Your task to perform on an android device: Open battery settings Image 0: 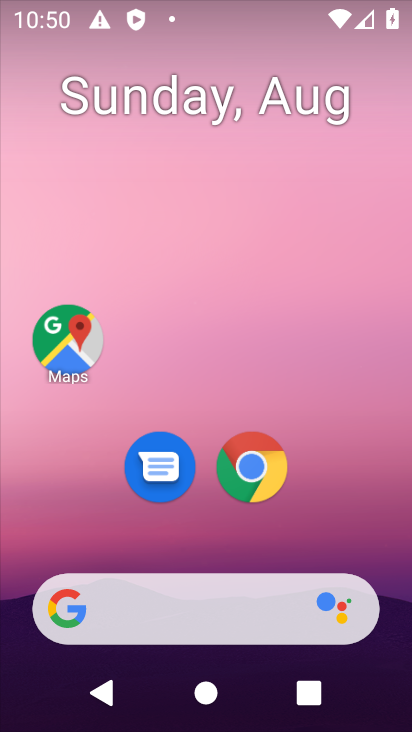
Step 0: drag from (156, 670) to (148, 232)
Your task to perform on an android device: Open battery settings Image 1: 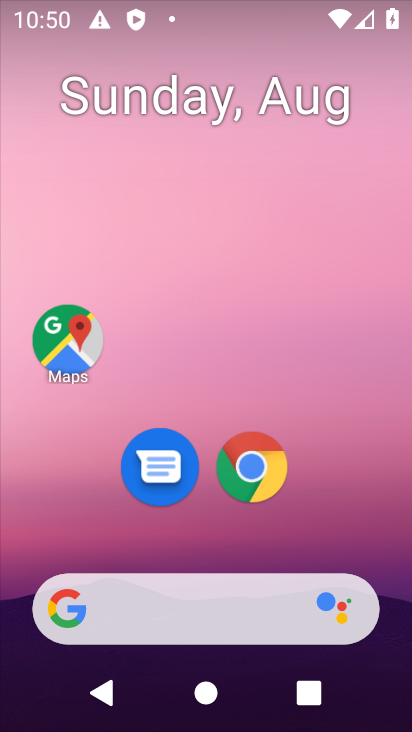
Step 1: drag from (209, 583) to (209, 259)
Your task to perform on an android device: Open battery settings Image 2: 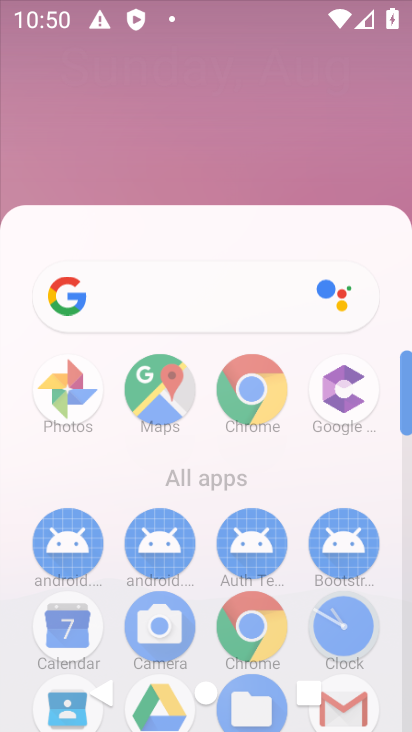
Step 2: drag from (210, 496) to (207, 118)
Your task to perform on an android device: Open battery settings Image 3: 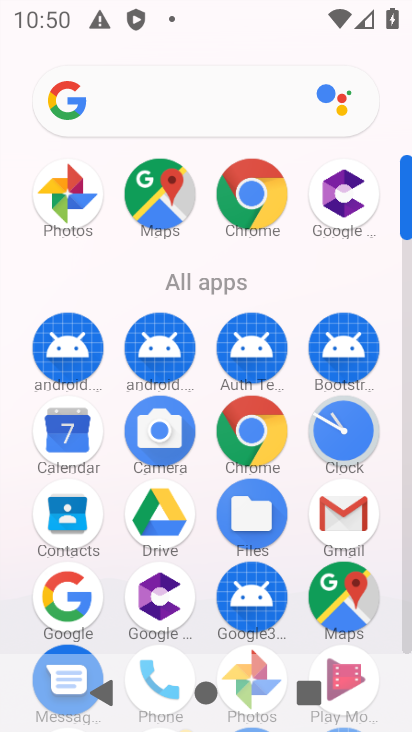
Step 3: drag from (251, 384) to (251, 176)
Your task to perform on an android device: Open battery settings Image 4: 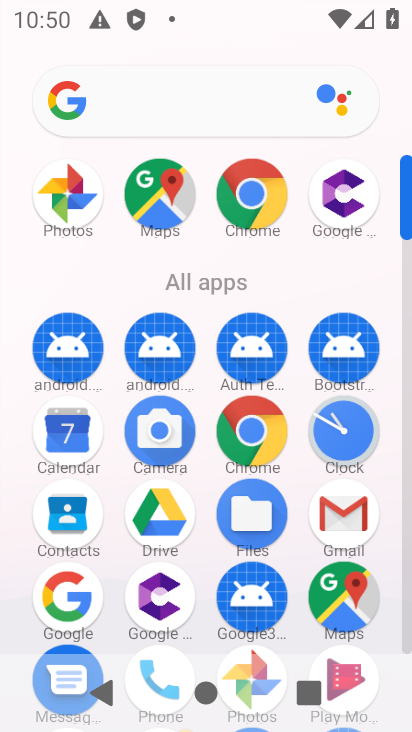
Step 4: drag from (192, 548) to (192, 224)
Your task to perform on an android device: Open battery settings Image 5: 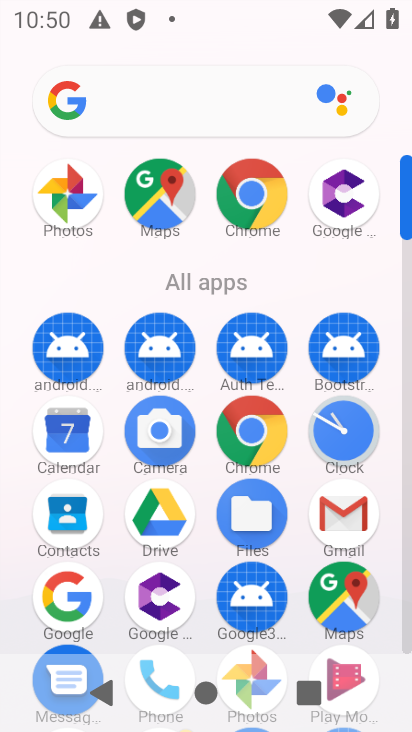
Step 5: drag from (193, 430) to (254, 256)
Your task to perform on an android device: Open battery settings Image 6: 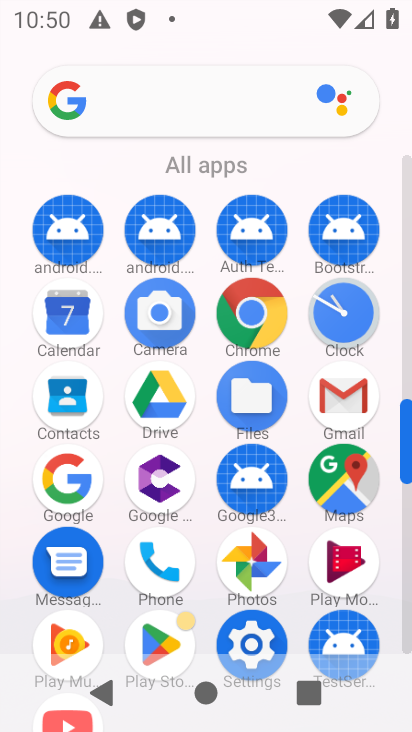
Step 6: click (257, 324)
Your task to perform on an android device: Open battery settings Image 7: 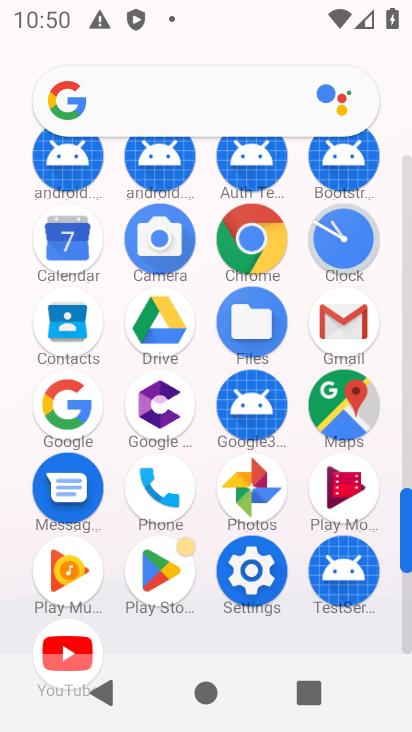
Step 7: drag from (269, 506) to (296, 286)
Your task to perform on an android device: Open battery settings Image 8: 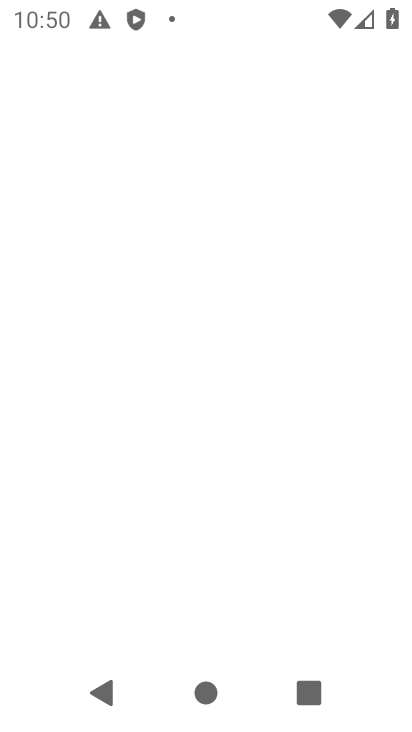
Step 8: click (249, 580)
Your task to perform on an android device: Open battery settings Image 9: 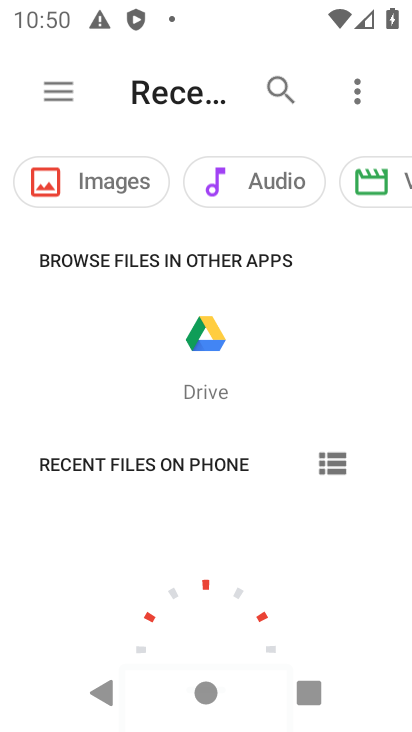
Step 9: press back button
Your task to perform on an android device: Open battery settings Image 10: 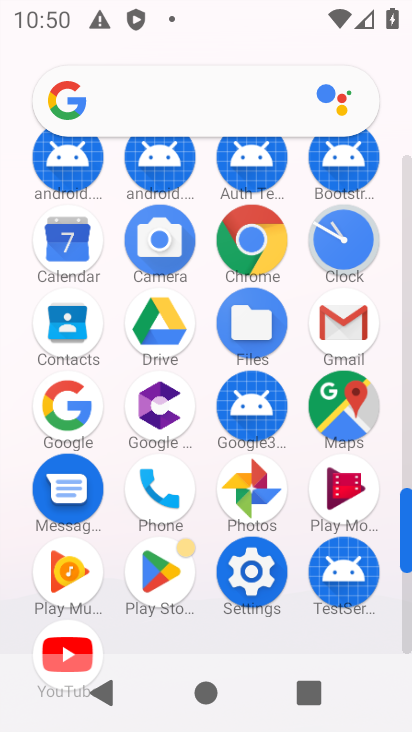
Step 10: click (260, 570)
Your task to perform on an android device: Open battery settings Image 11: 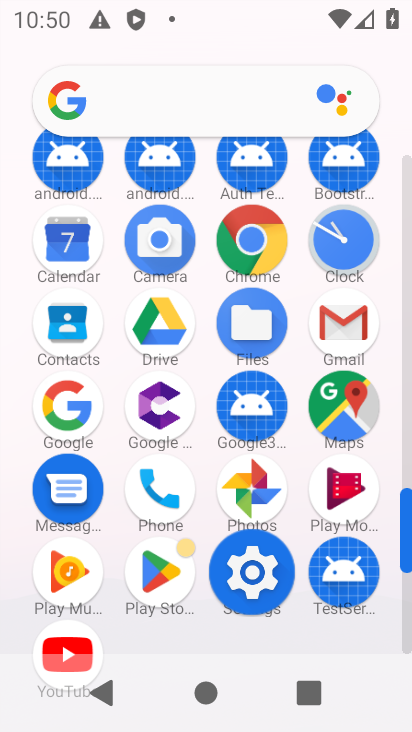
Step 11: click (261, 568)
Your task to perform on an android device: Open battery settings Image 12: 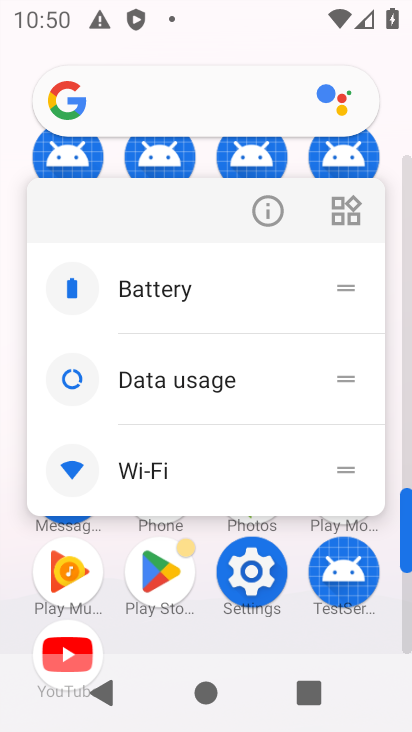
Step 12: click (261, 569)
Your task to perform on an android device: Open battery settings Image 13: 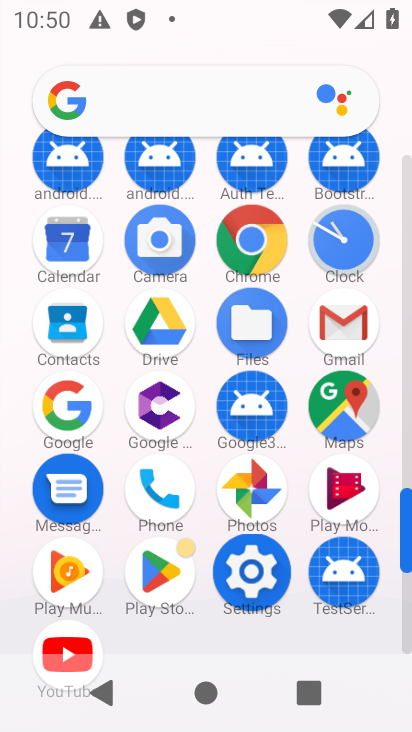
Step 13: click (263, 569)
Your task to perform on an android device: Open battery settings Image 14: 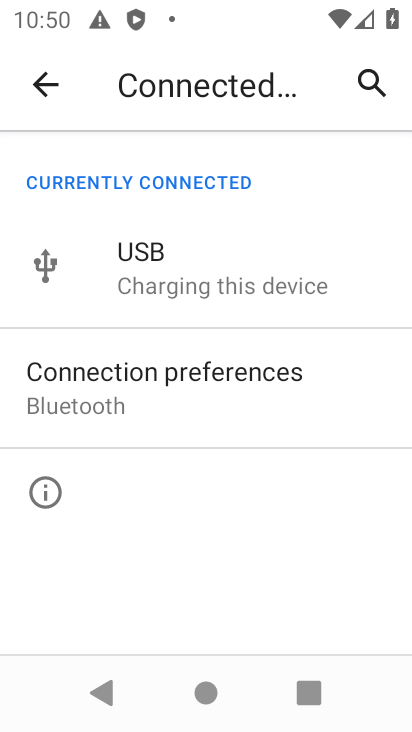
Step 14: click (44, 80)
Your task to perform on an android device: Open battery settings Image 15: 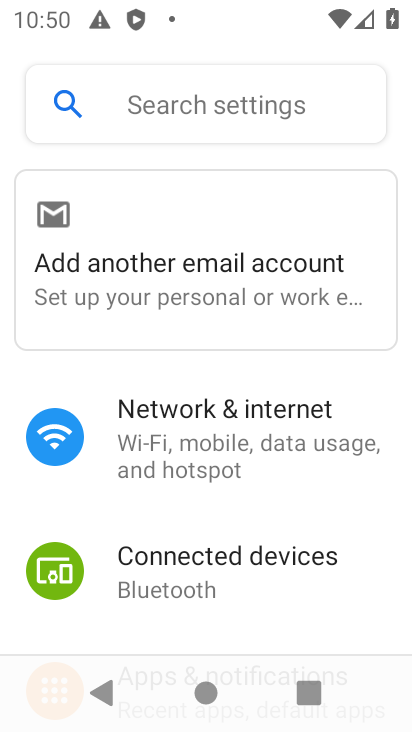
Step 15: drag from (220, 544) to (201, 297)
Your task to perform on an android device: Open battery settings Image 16: 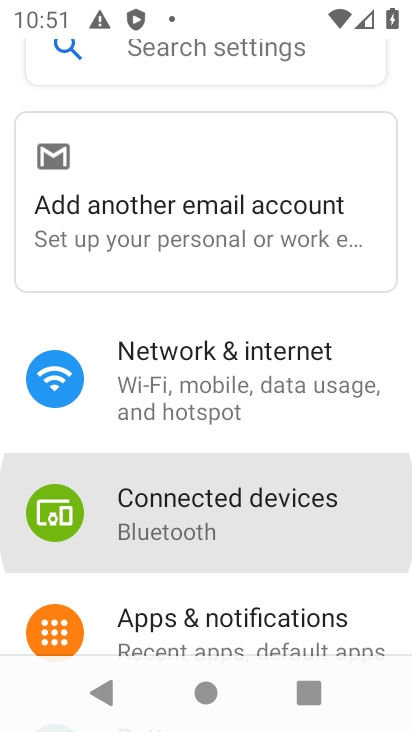
Step 16: drag from (201, 440) to (195, 277)
Your task to perform on an android device: Open battery settings Image 17: 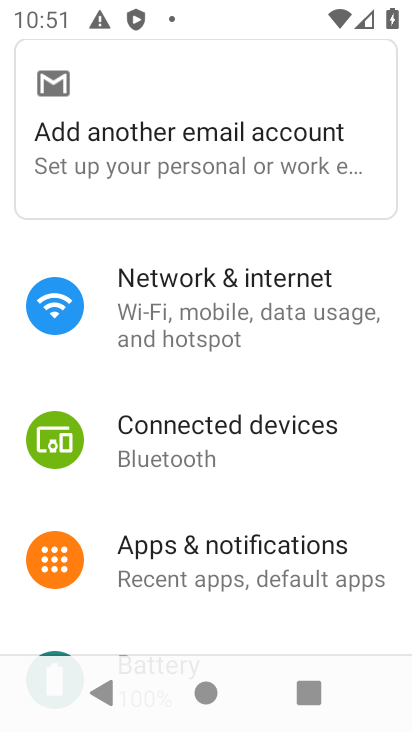
Step 17: drag from (195, 481) to (195, 251)
Your task to perform on an android device: Open battery settings Image 18: 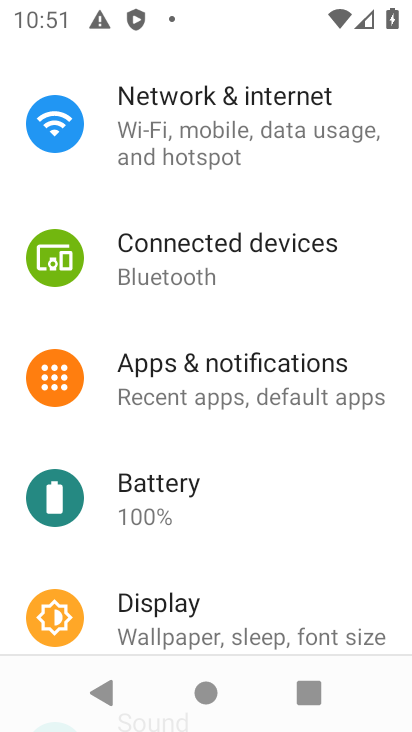
Step 18: drag from (236, 507) to (230, 276)
Your task to perform on an android device: Open battery settings Image 19: 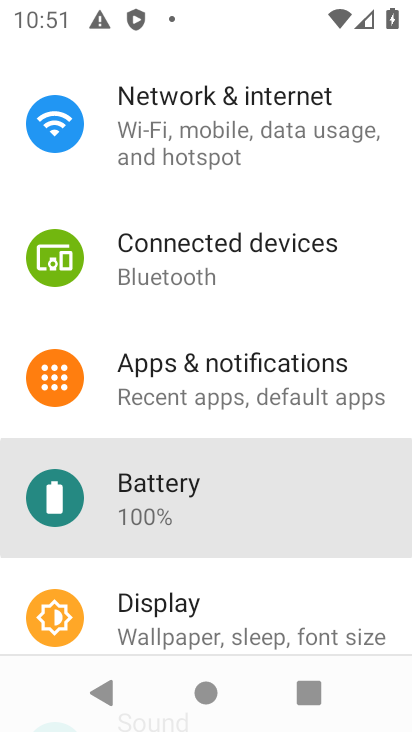
Step 19: drag from (211, 535) to (207, 308)
Your task to perform on an android device: Open battery settings Image 20: 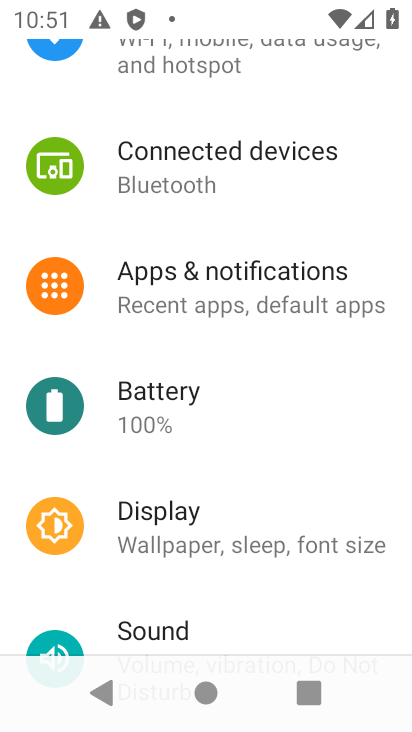
Step 20: drag from (200, 417) to (189, 278)
Your task to perform on an android device: Open battery settings Image 21: 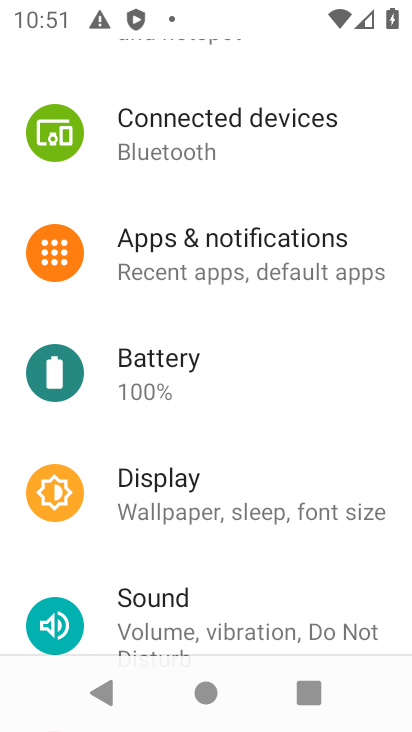
Step 21: drag from (180, 435) to (178, 289)
Your task to perform on an android device: Open battery settings Image 22: 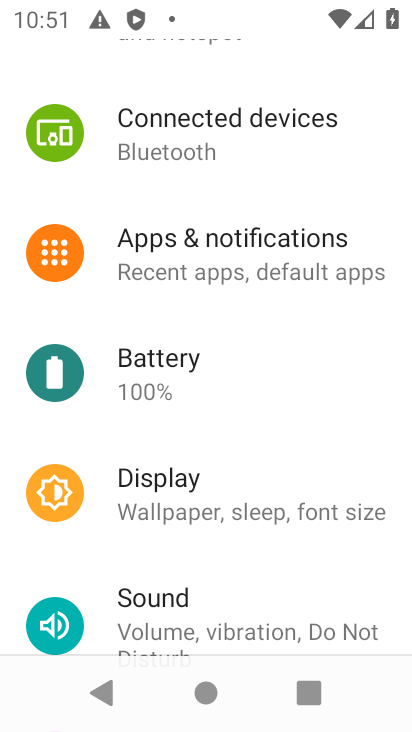
Step 22: drag from (221, 499) to (219, 313)
Your task to perform on an android device: Open battery settings Image 23: 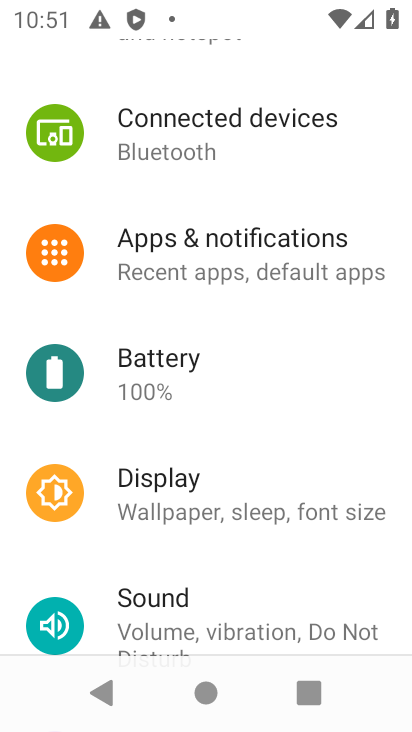
Step 23: drag from (287, 381) to (297, 321)
Your task to perform on an android device: Open battery settings Image 24: 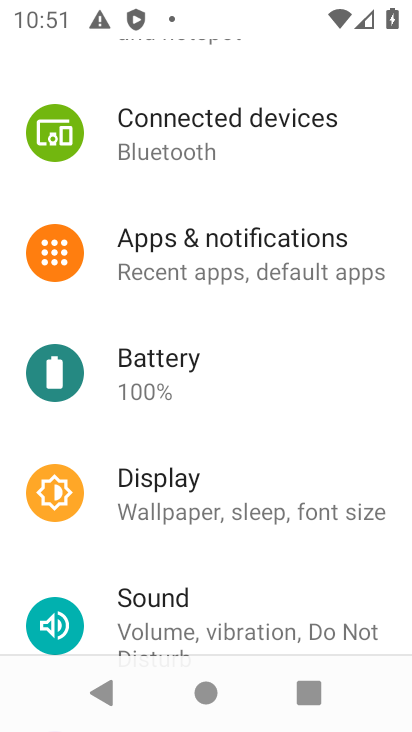
Step 24: drag from (179, 549) to (202, 321)
Your task to perform on an android device: Open battery settings Image 25: 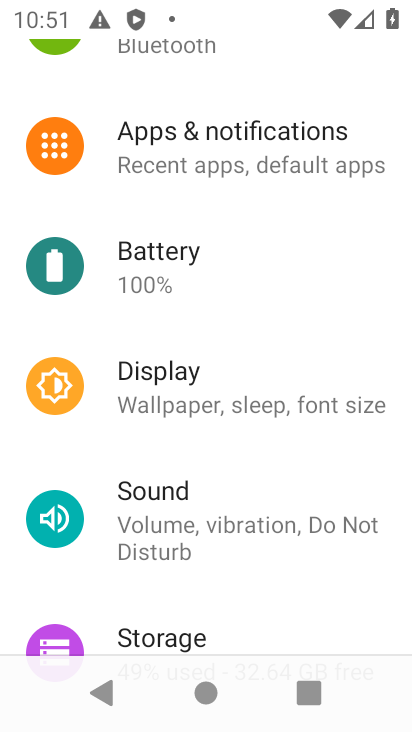
Step 25: drag from (248, 439) to (250, 254)
Your task to perform on an android device: Open battery settings Image 26: 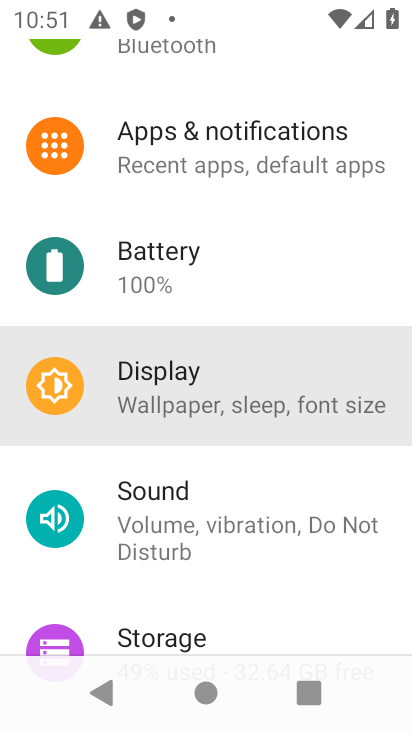
Step 26: click (250, 390)
Your task to perform on an android device: Open battery settings Image 27: 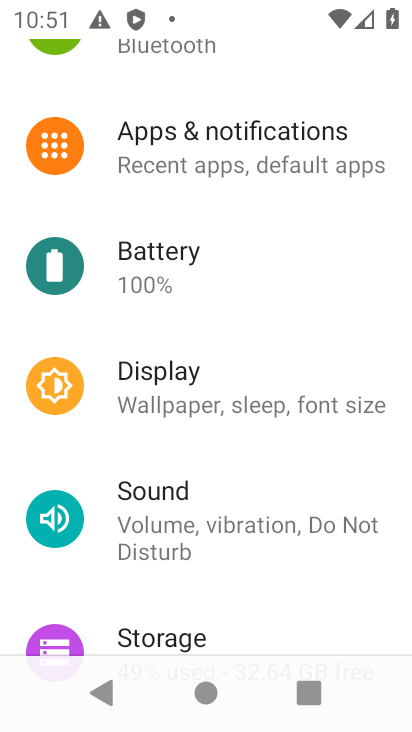
Step 27: click (146, 261)
Your task to perform on an android device: Open battery settings Image 28: 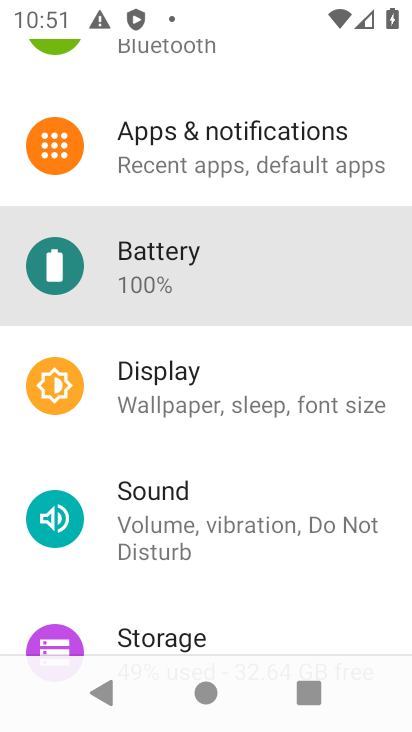
Step 28: click (148, 262)
Your task to perform on an android device: Open battery settings Image 29: 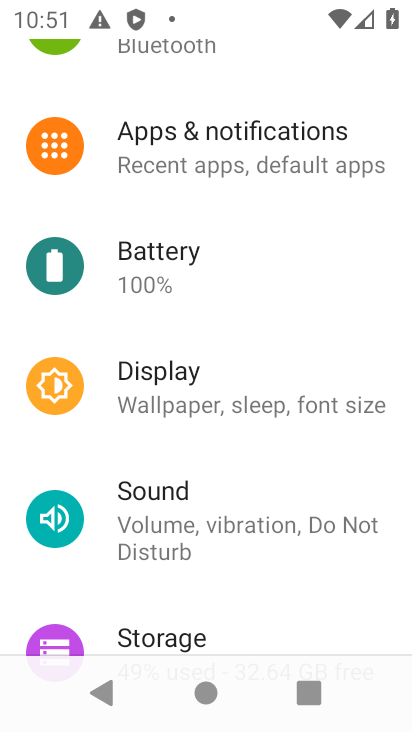
Step 29: click (149, 262)
Your task to perform on an android device: Open battery settings Image 30: 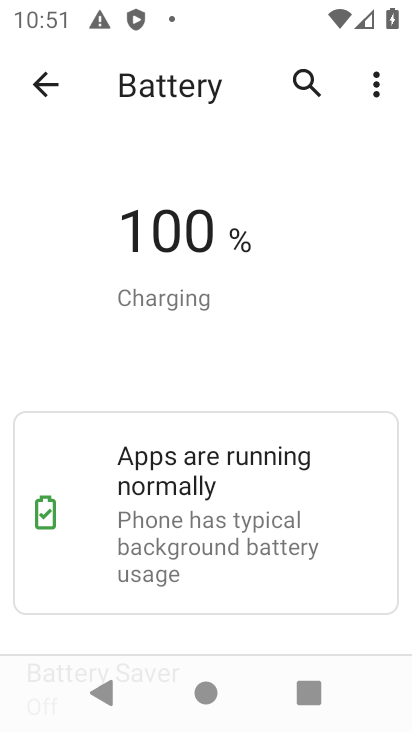
Step 30: task complete